Your task to perform on an android device: Open Google Image 0: 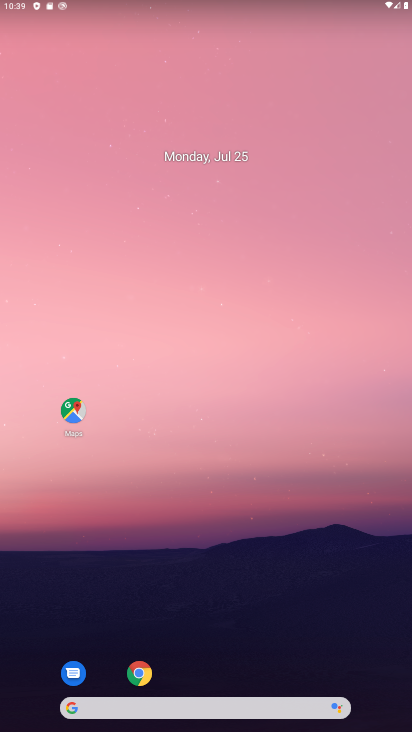
Step 0: drag from (280, 624) to (284, 29)
Your task to perform on an android device: Open Google Image 1: 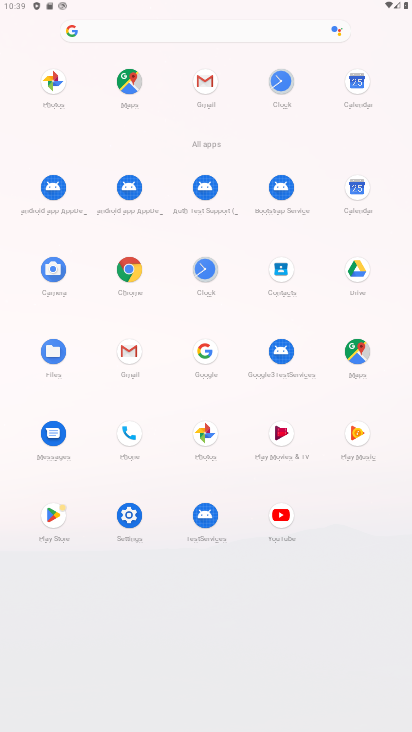
Step 1: click (203, 356)
Your task to perform on an android device: Open Google Image 2: 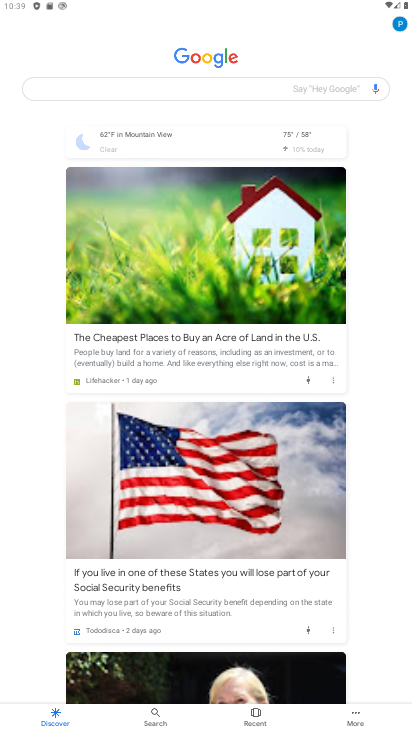
Step 2: task complete